Your task to perform on an android device: Clear the shopping cart on newegg.com. Search for sony triple a on newegg.com, select the first entry, and add it to the cart. Image 0: 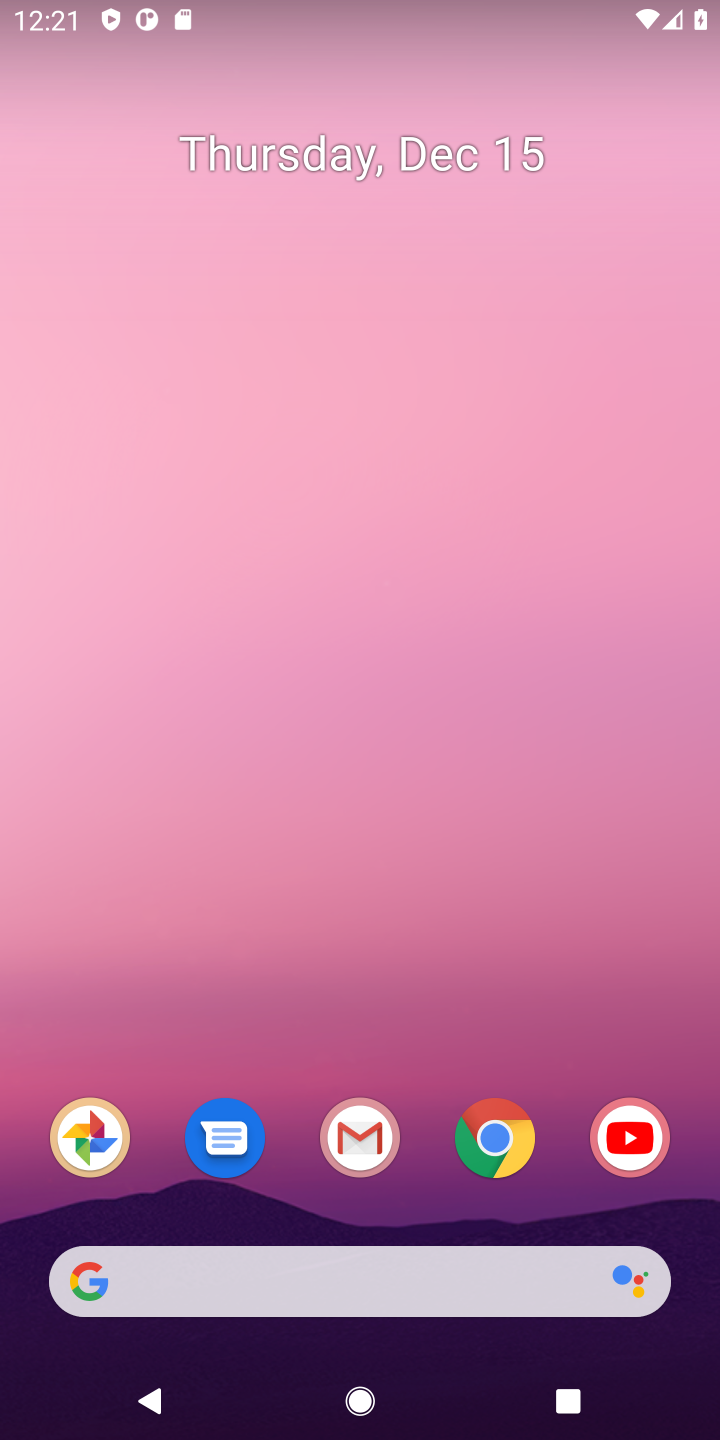
Step 0: click (496, 1168)
Your task to perform on an android device: Clear the shopping cart on newegg.com. Search for sony triple a on newegg.com, select the first entry, and add it to the cart. Image 1: 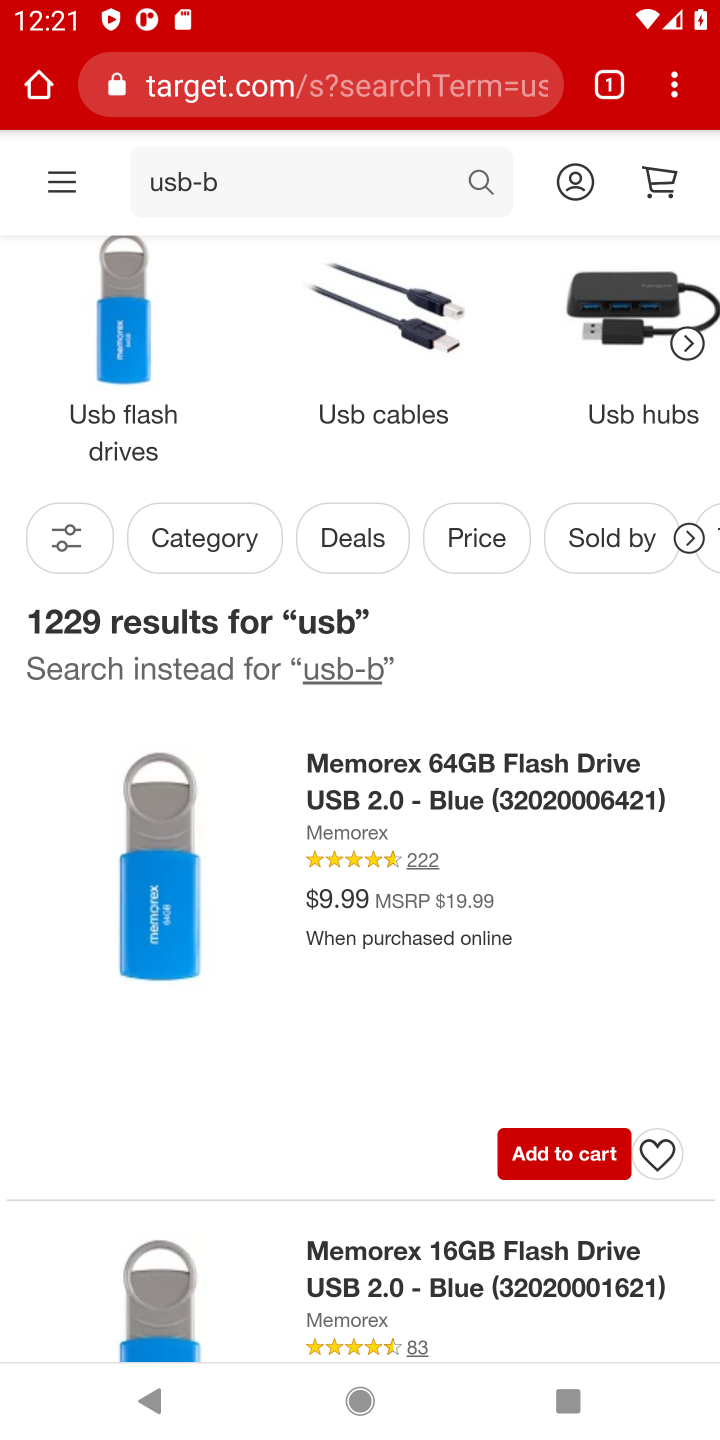
Step 1: click (314, 90)
Your task to perform on an android device: Clear the shopping cart on newegg.com. Search for sony triple a on newegg.com, select the first entry, and add it to the cart. Image 2: 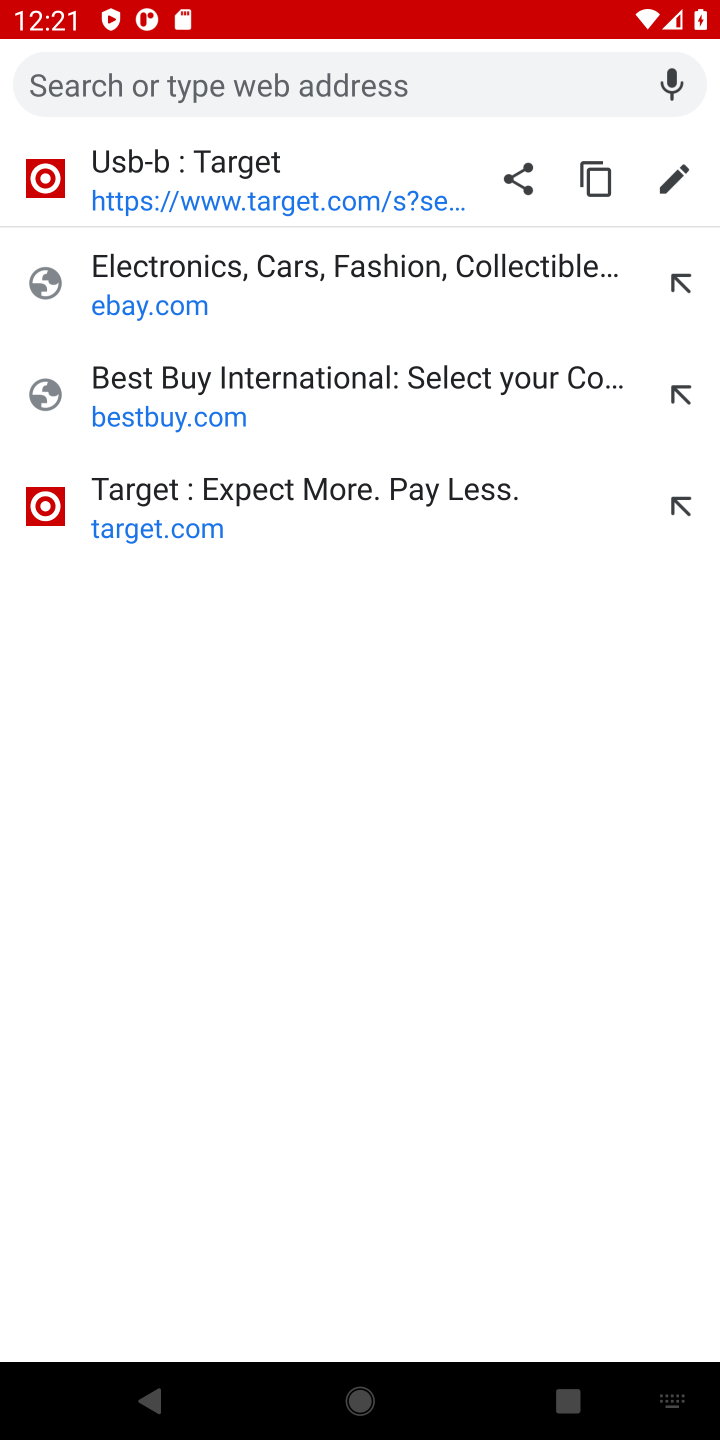
Step 2: type "newegg.com"
Your task to perform on an android device: Clear the shopping cart on newegg.com. Search for sony triple a on newegg.com, select the first entry, and add it to the cart. Image 3: 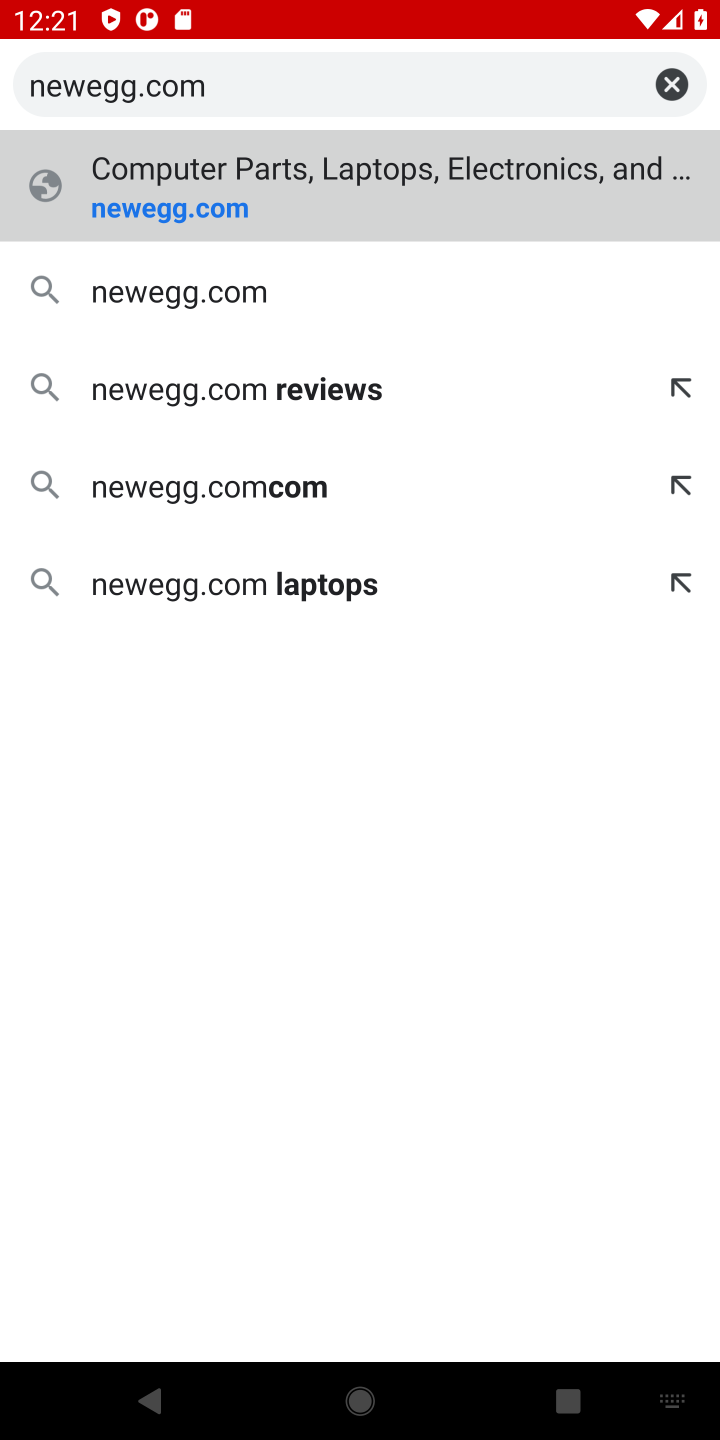
Step 3: click (215, 191)
Your task to perform on an android device: Clear the shopping cart on newegg.com. Search for sony triple a on newegg.com, select the first entry, and add it to the cart. Image 4: 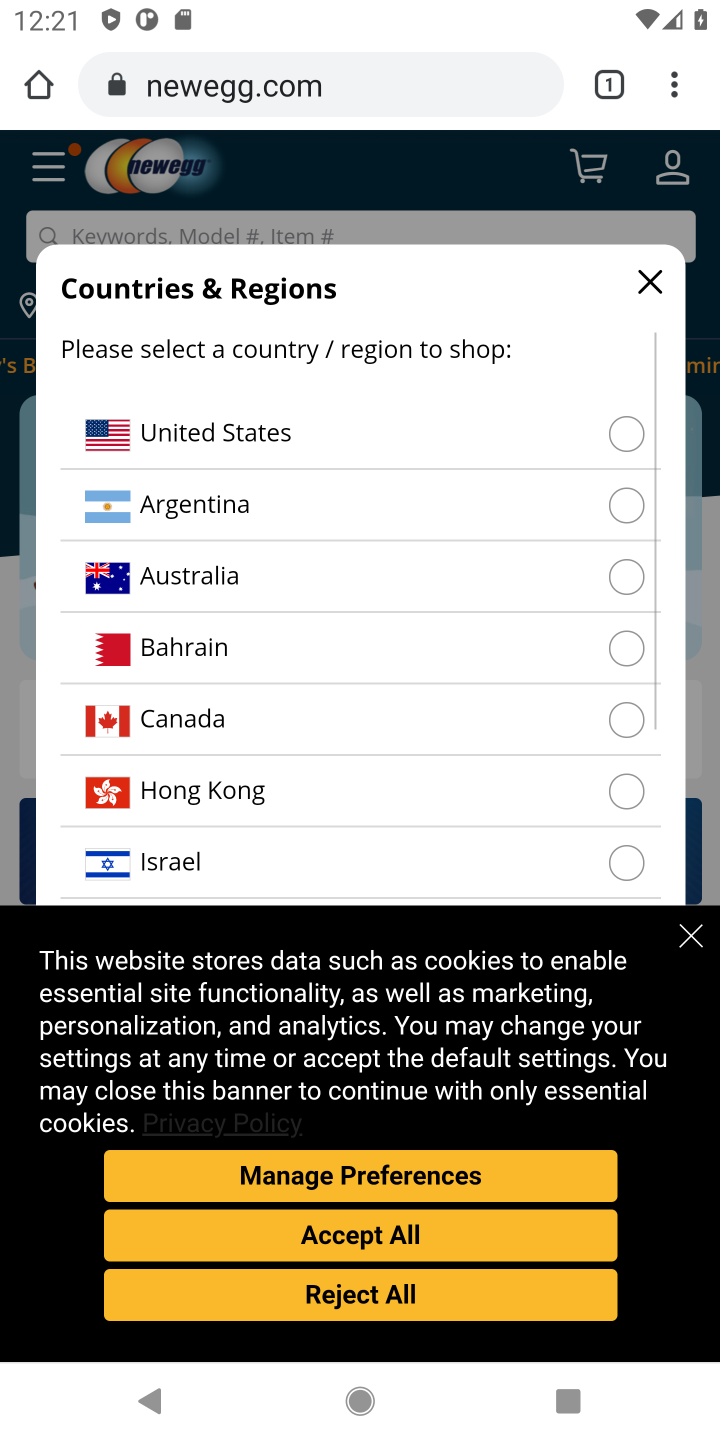
Step 4: click (364, 1242)
Your task to perform on an android device: Clear the shopping cart on newegg.com. Search for sony triple a on newegg.com, select the first entry, and add it to the cart. Image 5: 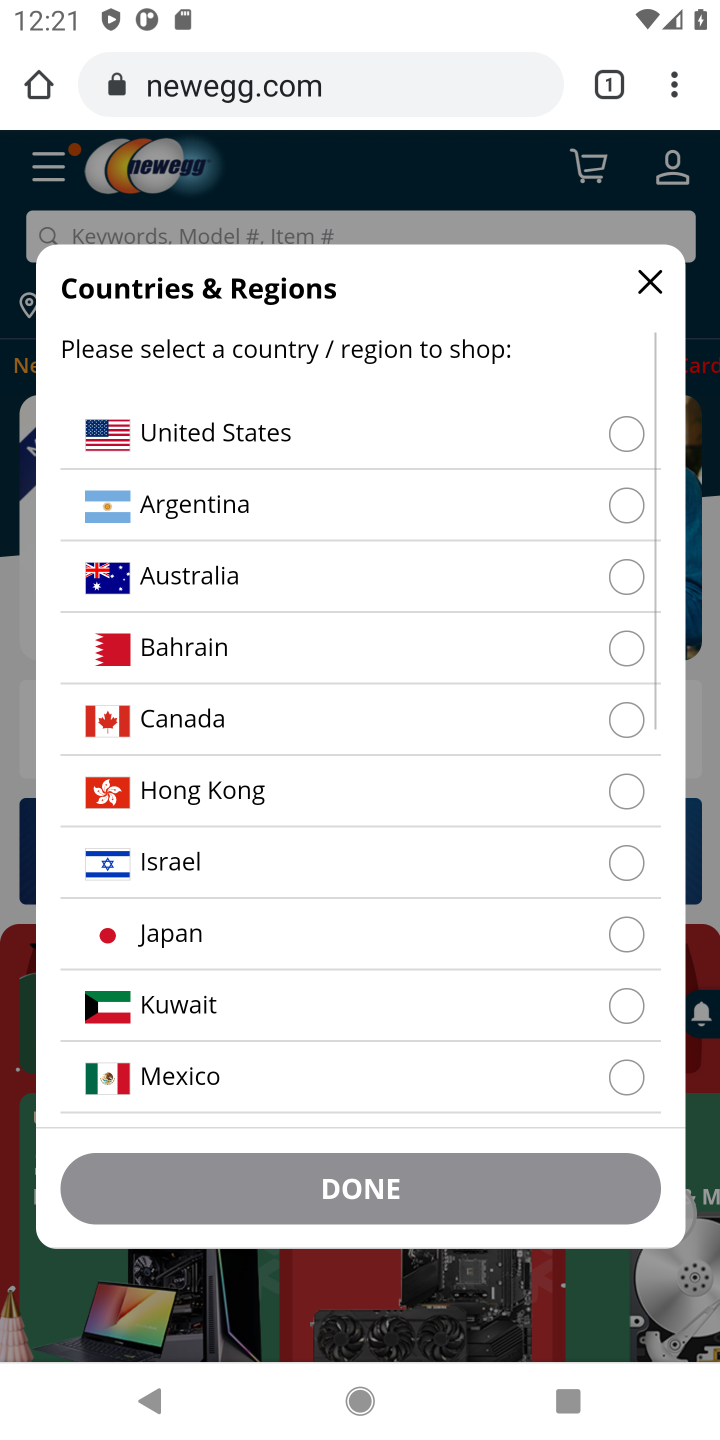
Step 5: click (535, 443)
Your task to perform on an android device: Clear the shopping cart on newegg.com. Search for sony triple a on newegg.com, select the first entry, and add it to the cart. Image 6: 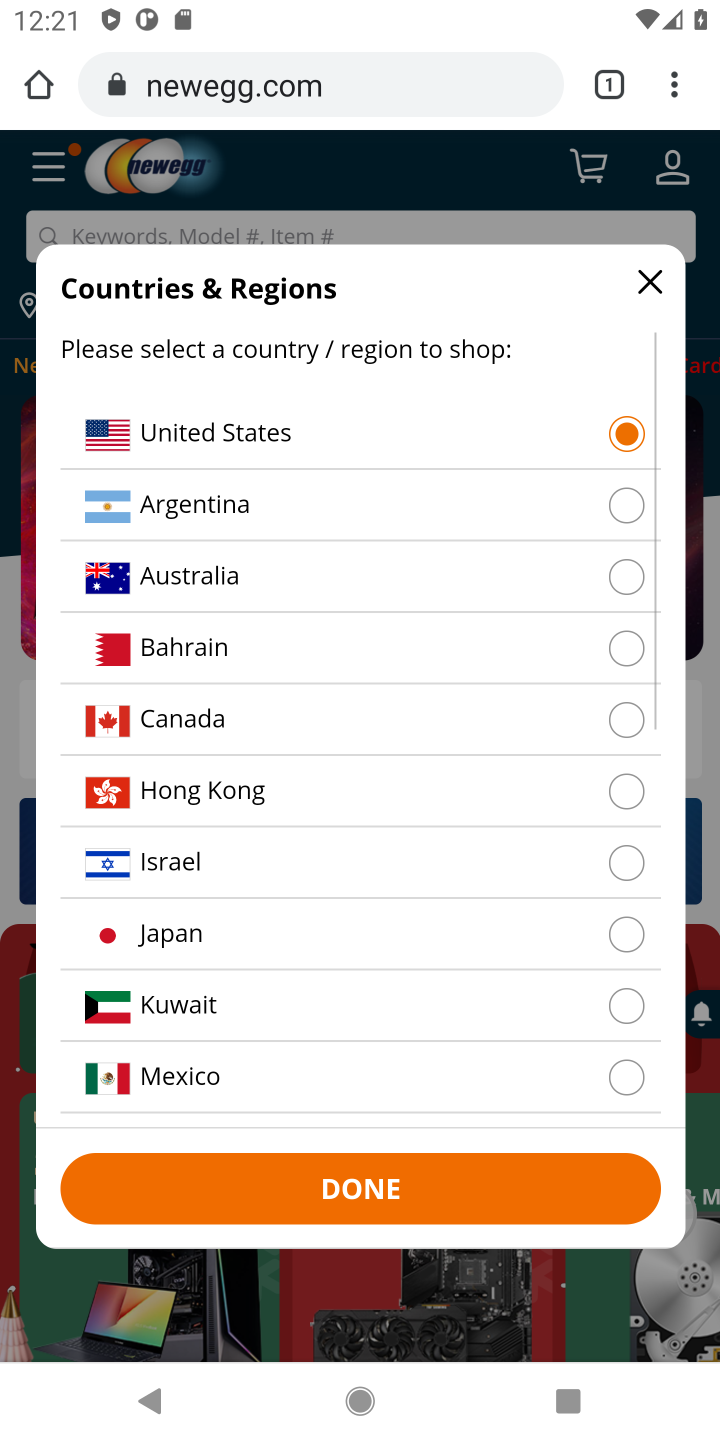
Step 6: click (512, 1207)
Your task to perform on an android device: Clear the shopping cart on newegg.com. Search for sony triple a on newegg.com, select the first entry, and add it to the cart. Image 7: 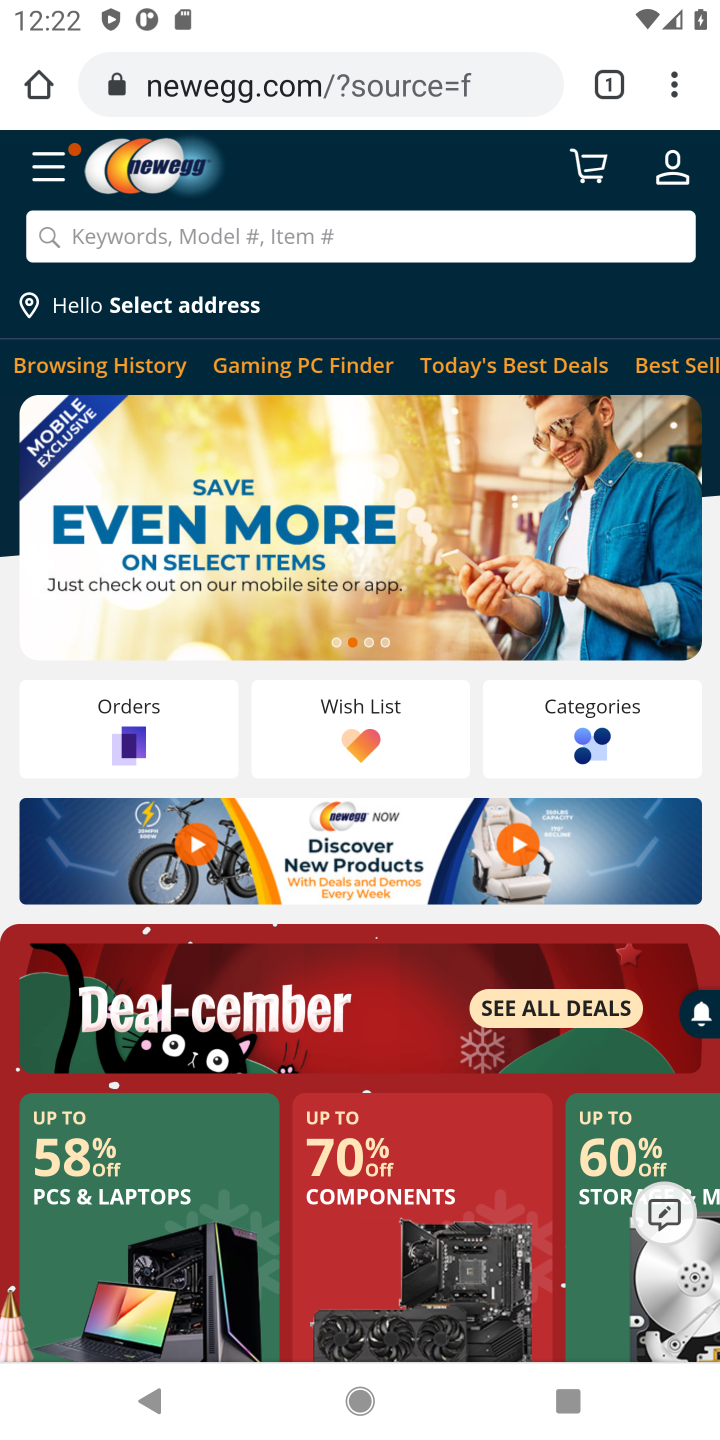
Step 7: click (336, 237)
Your task to perform on an android device: Clear the shopping cart on newegg.com. Search for sony triple a on newegg.com, select the first entry, and add it to the cart. Image 8: 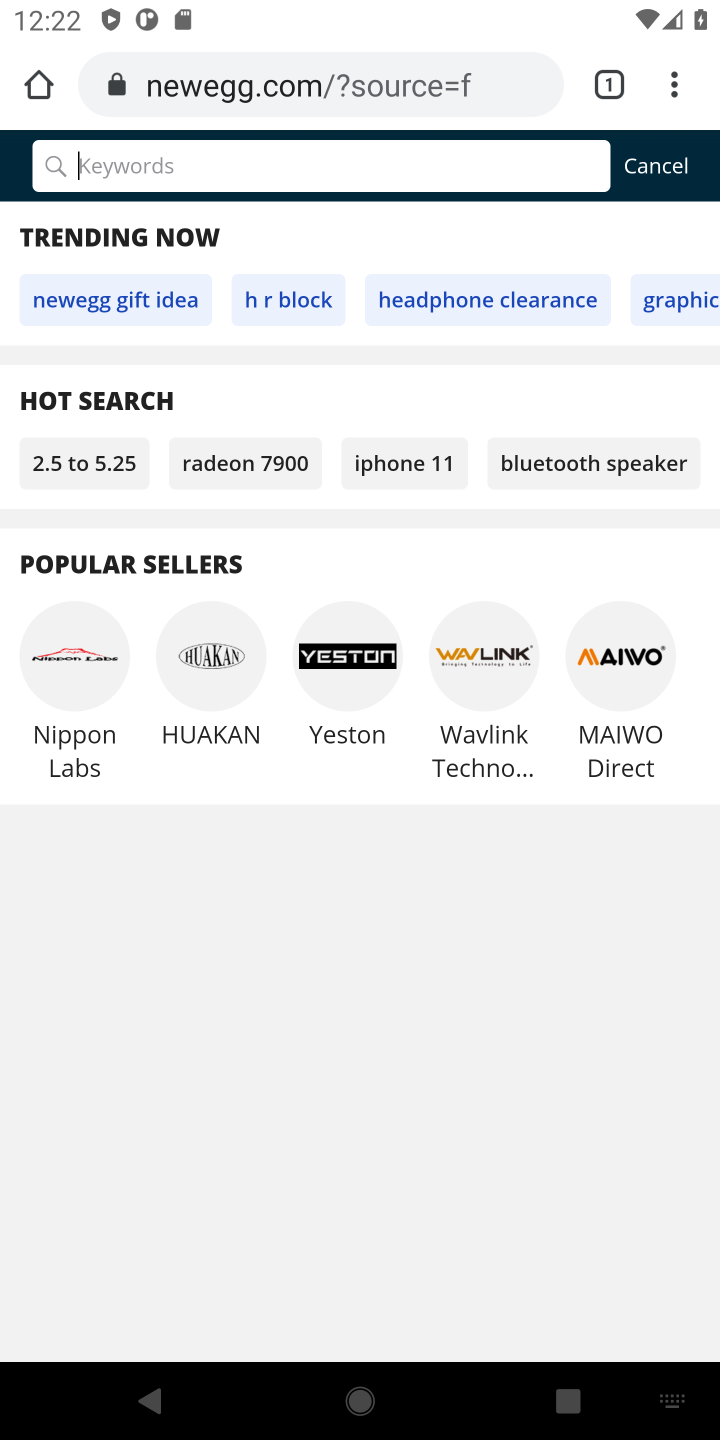
Step 8: type "newegg.com"
Your task to perform on an android device: Clear the shopping cart on newegg.com. Search for sony triple a on newegg.com, select the first entry, and add it to the cart. Image 9: 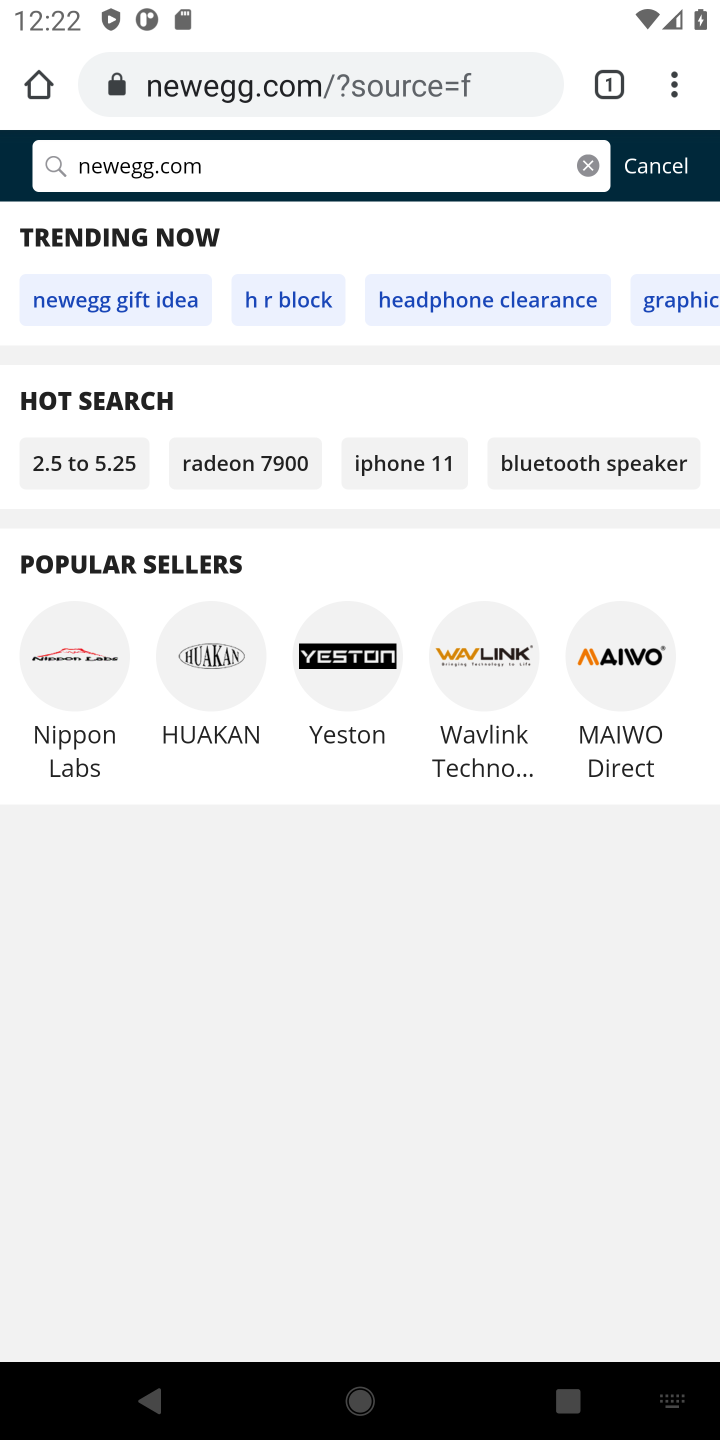
Step 9: press enter
Your task to perform on an android device: Clear the shopping cart on newegg.com. Search for sony triple a on newegg.com, select the first entry, and add it to the cart. Image 10: 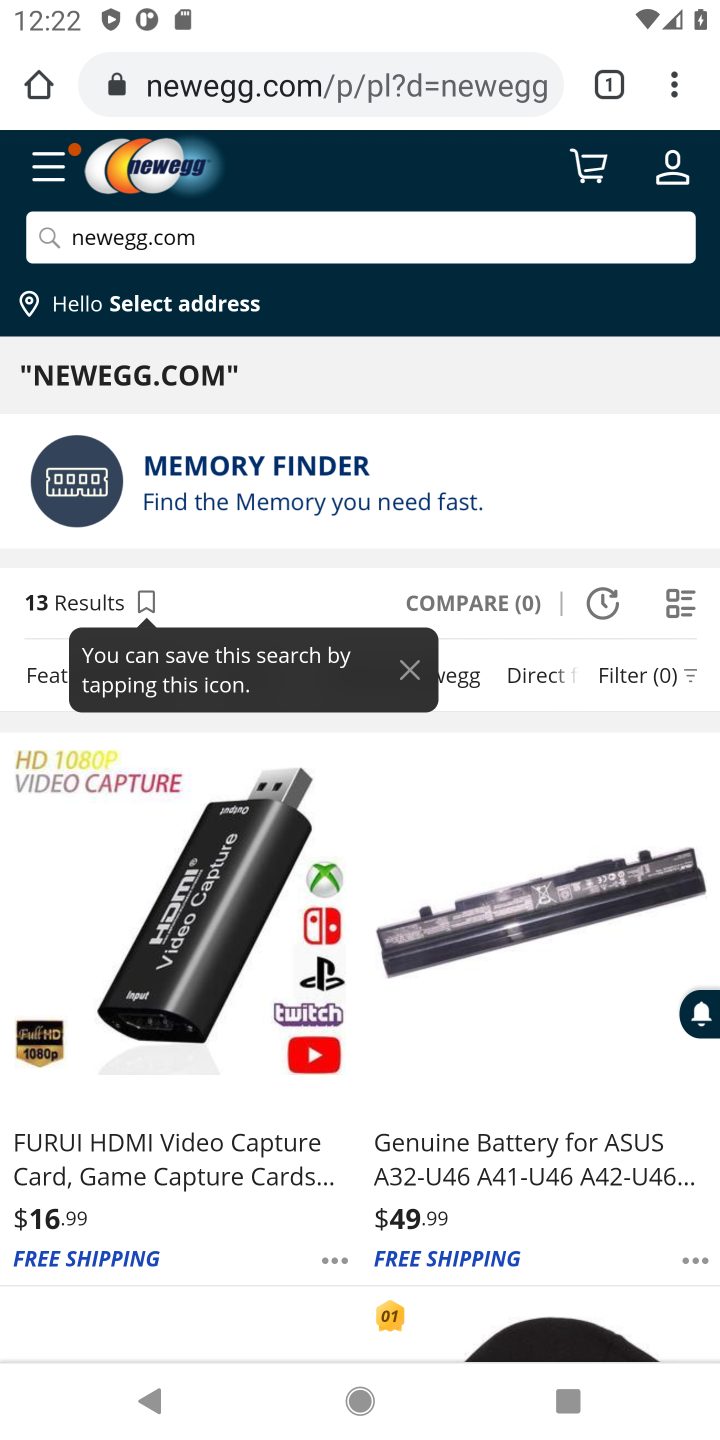
Step 10: drag from (369, 587) to (399, 247)
Your task to perform on an android device: Clear the shopping cart on newegg.com. Search for sony triple a on newegg.com, select the first entry, and add it to the cart. Image 11: 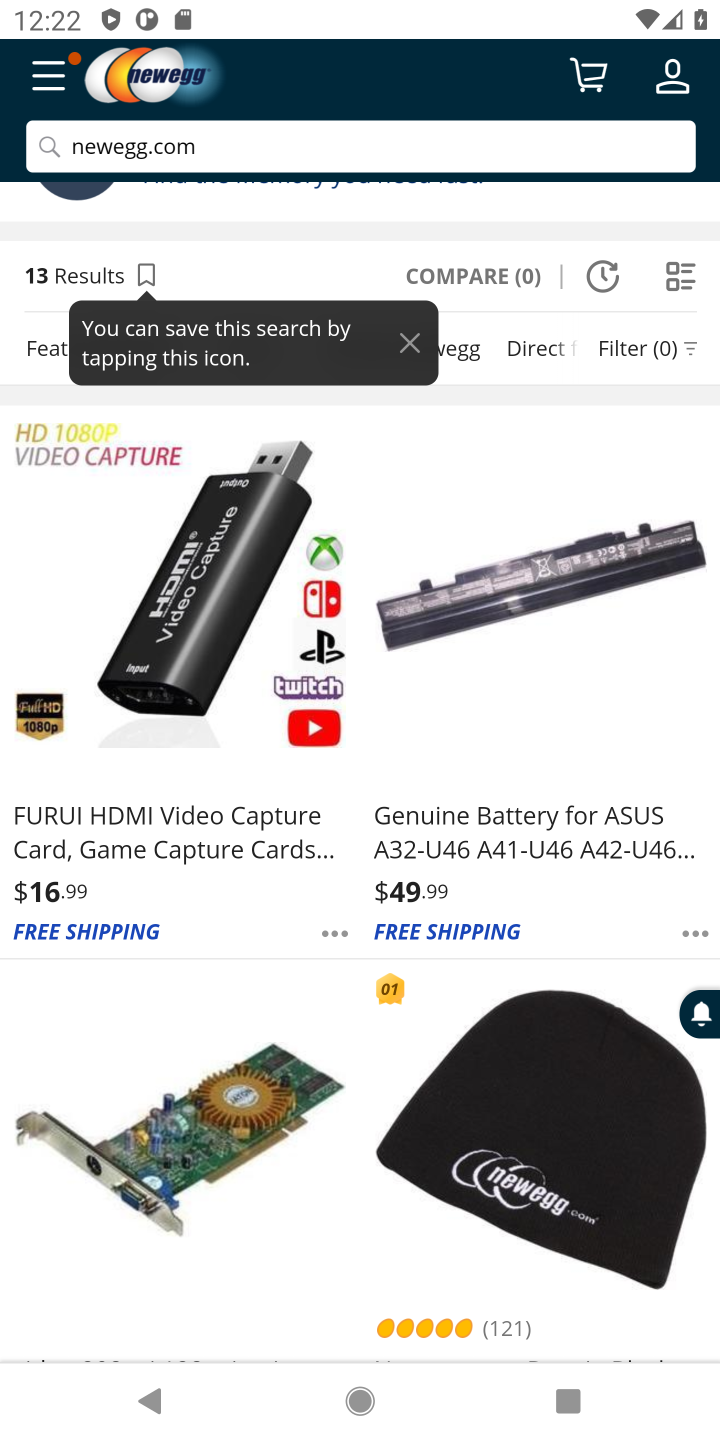
Step 11: drag from (332, 950) to (342, 1288)
Your task to perform on an android device: Clear the shopping cart on newegg.com. Search for sony triple a on newegg.com, select the first entry, and add it to the cart. Image 12: 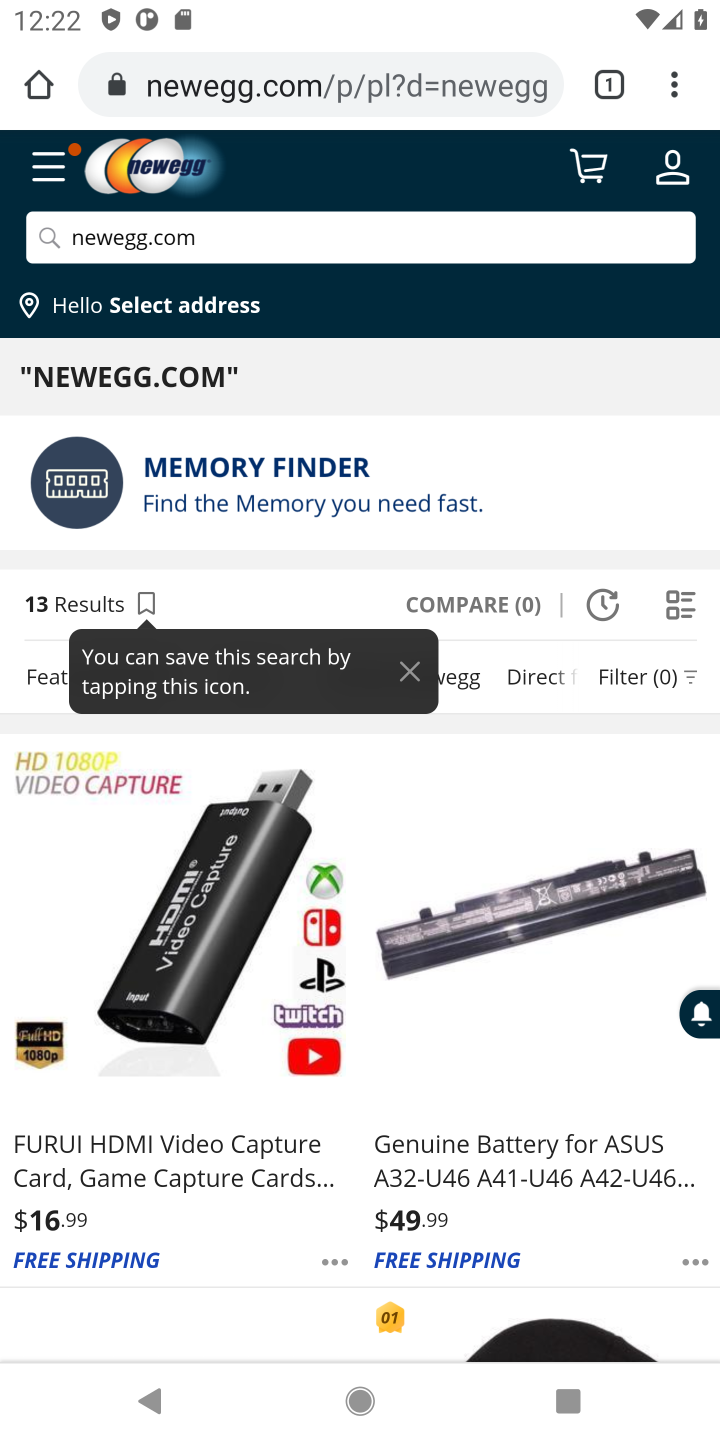
Step 12: click (202, 237)
Your task to perform on an android device: Clear the shopping cart on newegg.com. Search for sony triple a on newegg.com, select the first entry, and add it to the cart. Image 13: 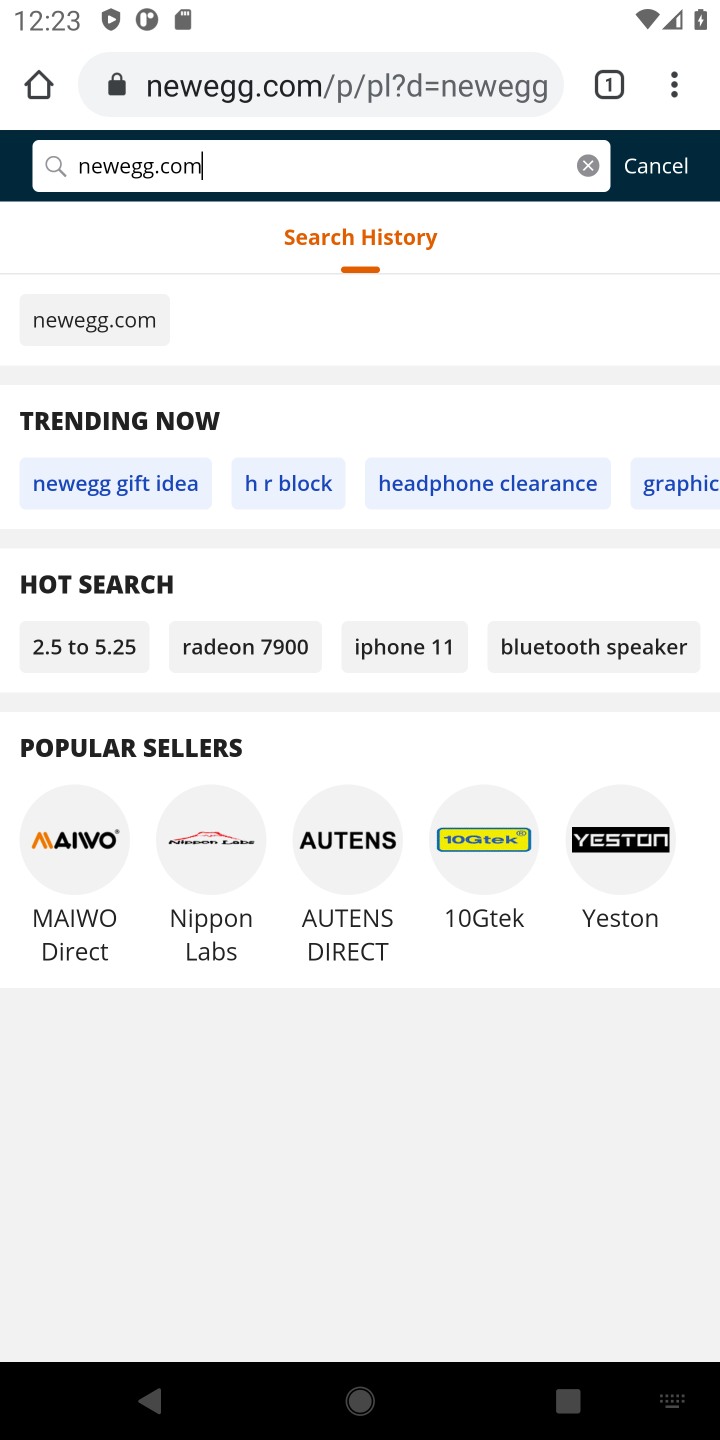
Step 13: click (578, 176)
Your task to perform on an android device: Clear the shopping cart on newegg.com. Search for sony triple a on newegg.com, select the first entry, and add it to the cart. Image 14: 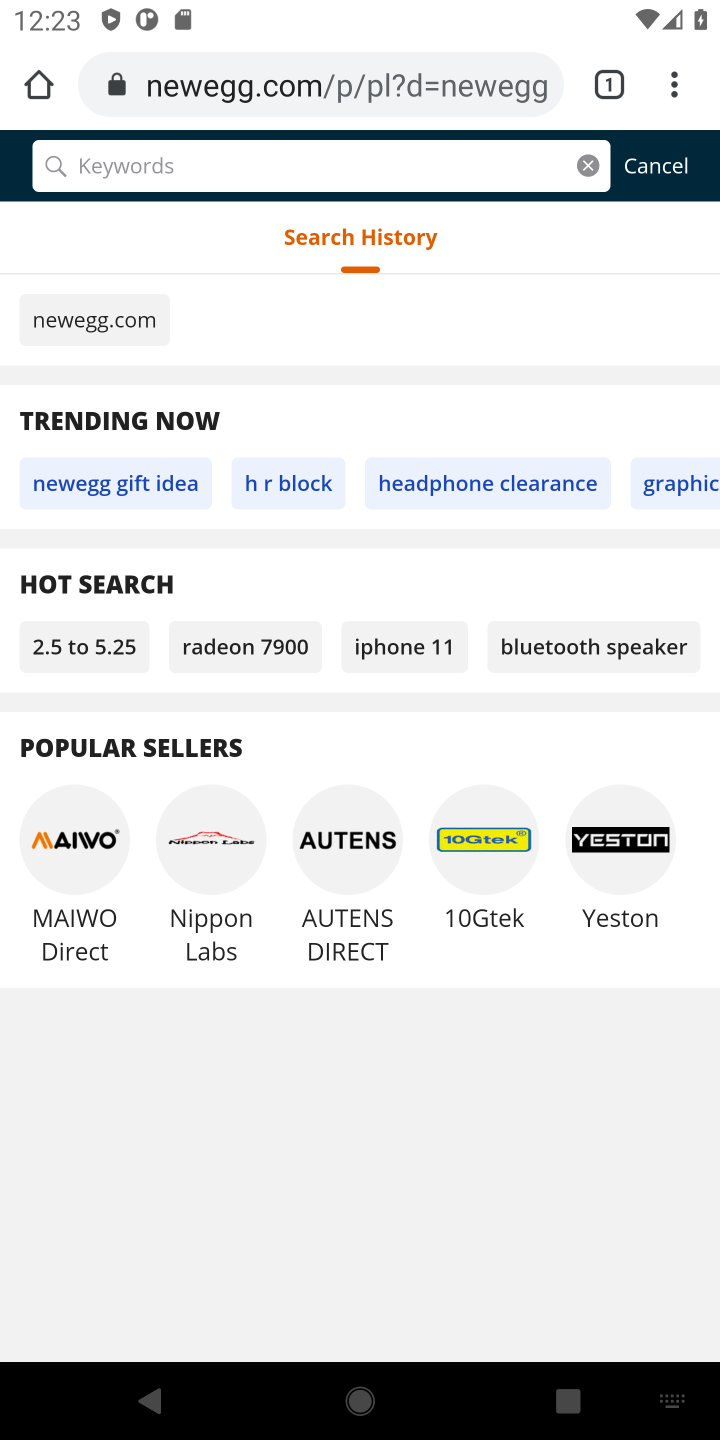
Step 14: click (588, 171)
Your task to perform on an android device: Clear the shopping cart on newegg.com. Search for sony triple a on newegg.com, select the first entry, and add it to the cart. Image 15: 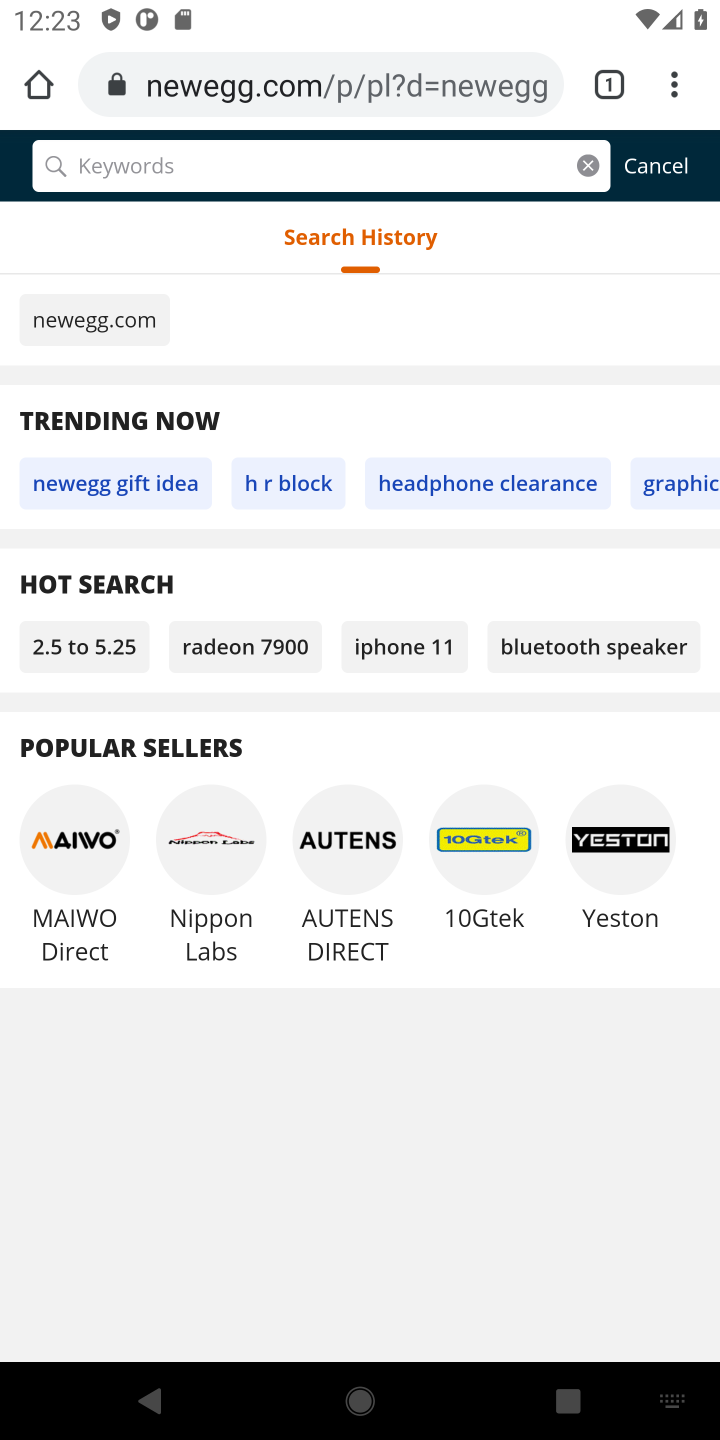
Step 15: type "sony triple a"
Your task to perform on an android device: Clear the shopping cart on newegg.com. Search for sony triple a on newegg.com, select the first entry, and add it to the cart. Image 16: 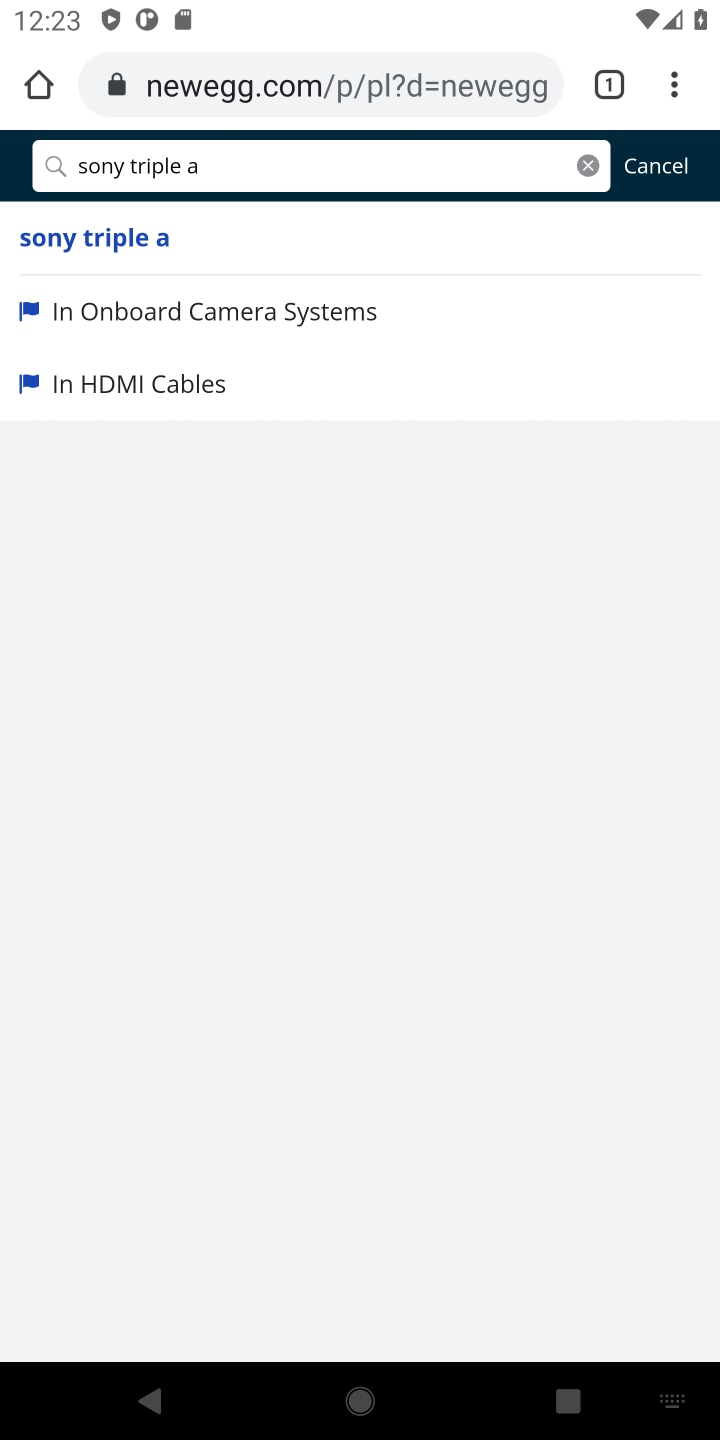
Step 16: press enter
Your task to perform on an android device: Clear the shopping cart on newegg.com. Search for sony triple a on newegg.com, select the first entry, and add it to the cart. Image 17: 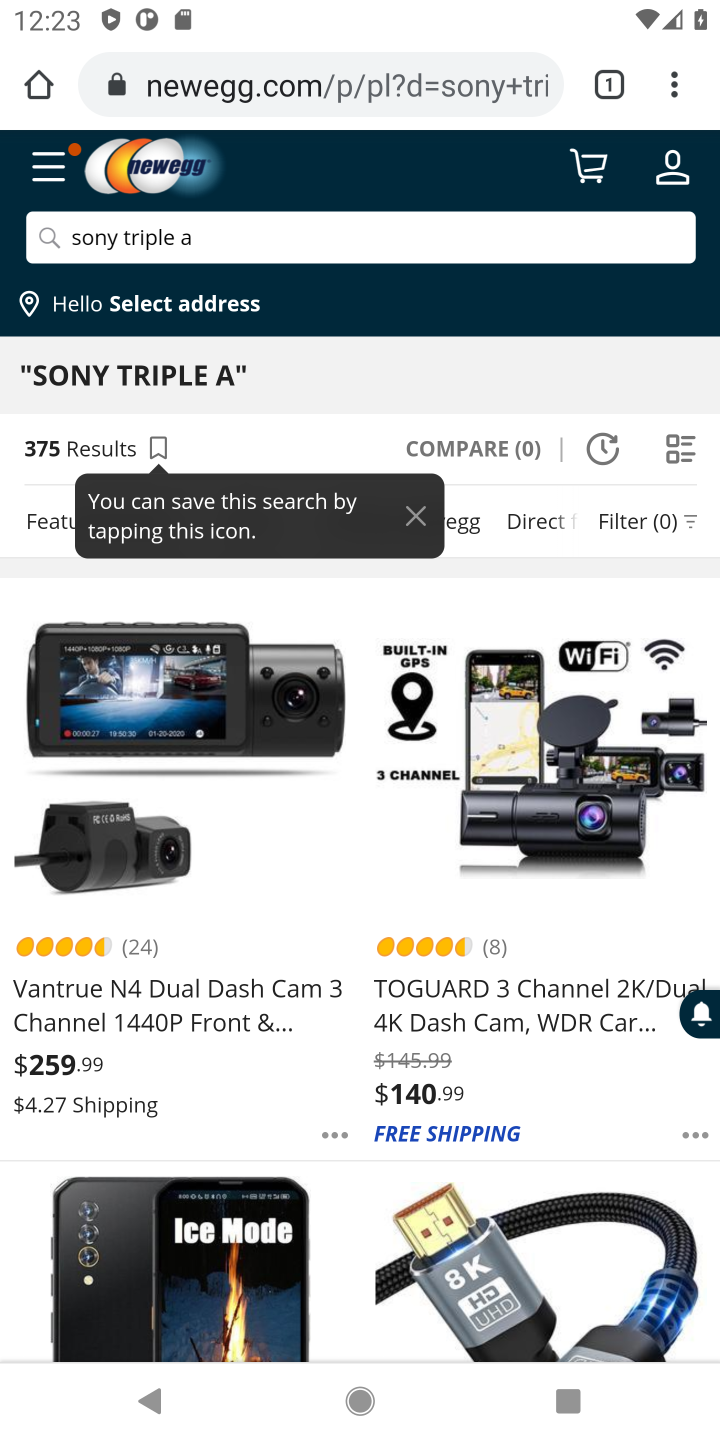
Step 17: task complete